Your task to perform on an android device: When is my next appointment? Image 0: 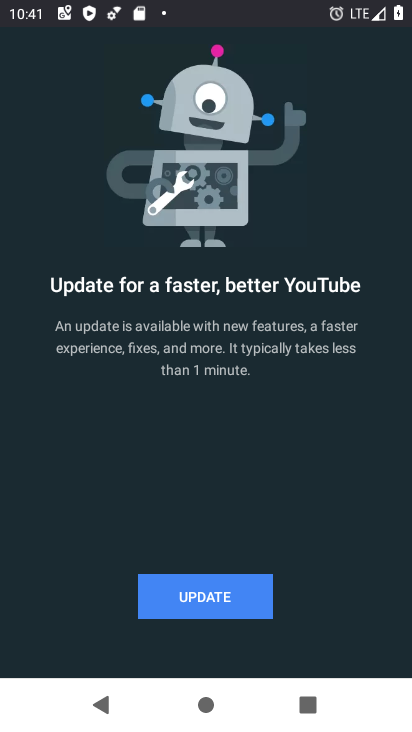
Step 0: press home button
Your task to perform on an android device: When is my next appointment? Image 1: 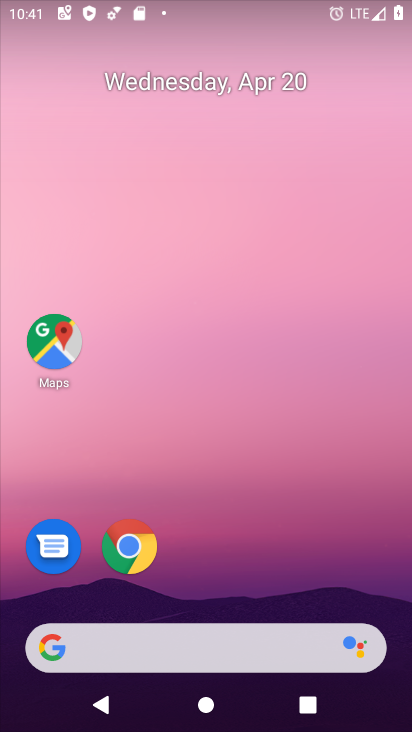
Step 1: drag from (196, 582) to (90, 108)
Your task to perform on an android device: When is my next appointment? Image 2: 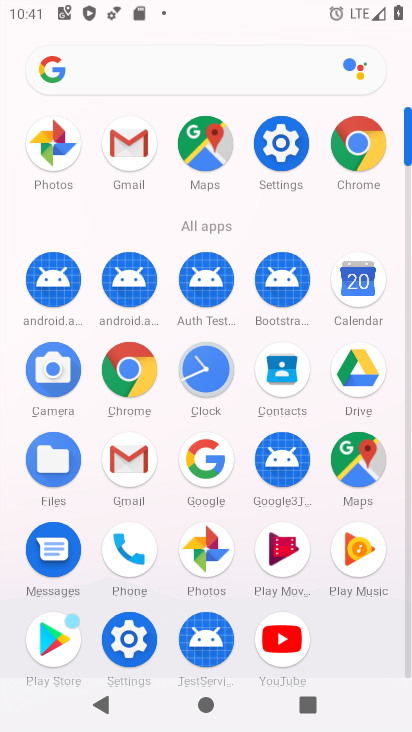
Step 2: click (358, 286)
Your task to perform on an android device: When is my next appointment? Image 3: 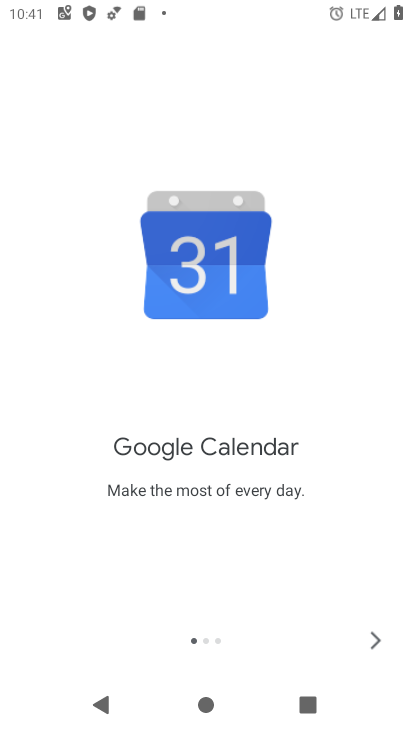
Step 3: click (358, 630)
Your task to perform on an android device: When is my next appointment? Image 4: 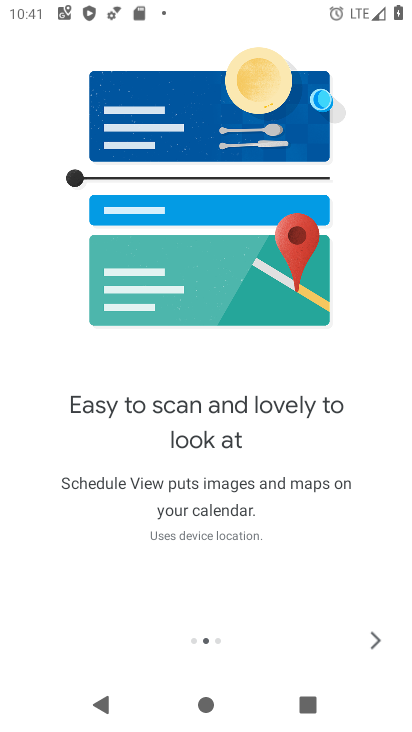
Step 4: click (361, 634)
Your task to perform on an android device: When is my next appointment? Image 5: 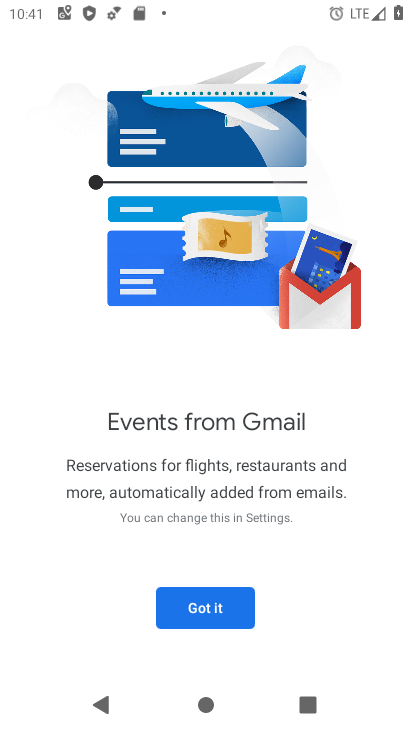
Step 5: click (242, 608)
Your task to perform on an android device: When is my next appointment? Image 6: 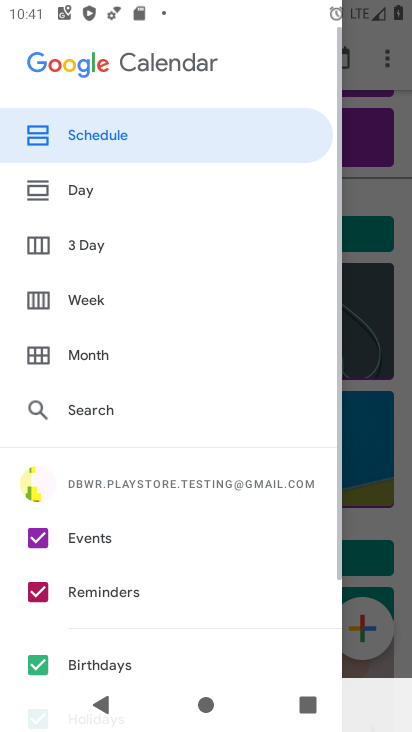
Step 6: click (187, 140)
Your task to perform on an android device: When is my next appointment? Image 7: 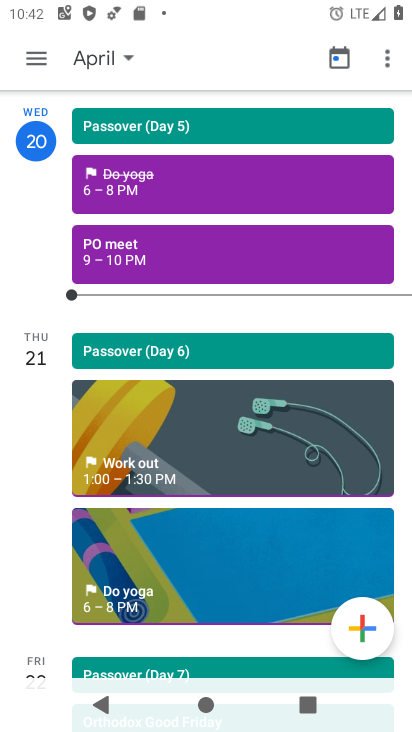
Step 7: drag from (112, 425) to (103, 313)
Your task to perform on an android device: When is my next appointment? Image 8: 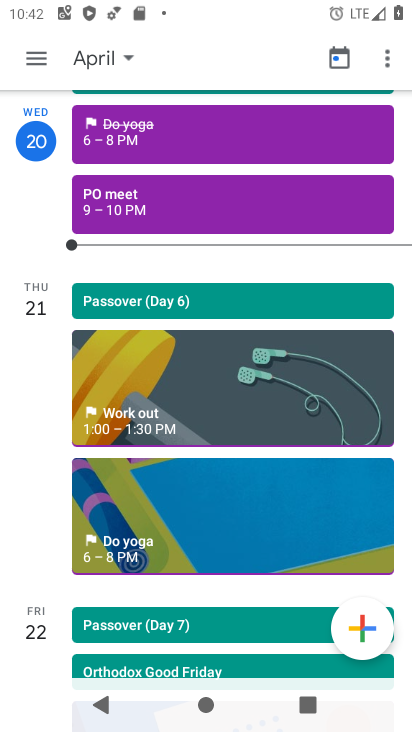
Step 8: click (115, 397)
Your task to perform on an android device: When is my next appointment? Image 9: 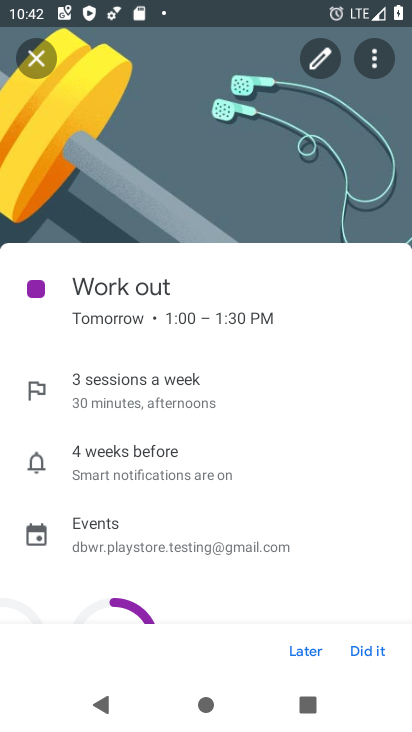
Step 9: task complete